Your task to perform on an android device: Open Amazon Image 0: 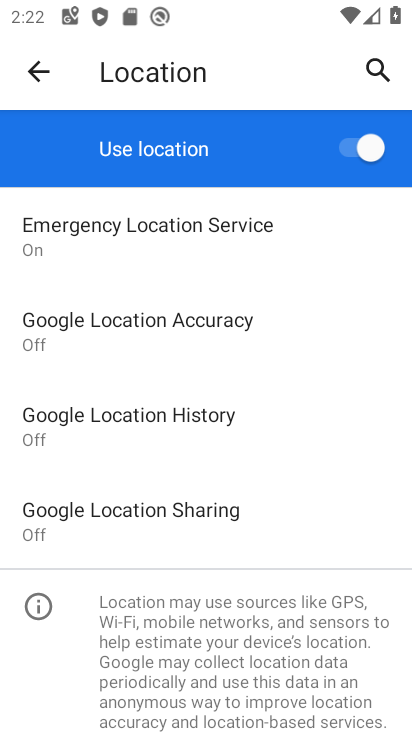
Step 0: press home button
Your task to perform on an android device: Open Amazon Image 1: 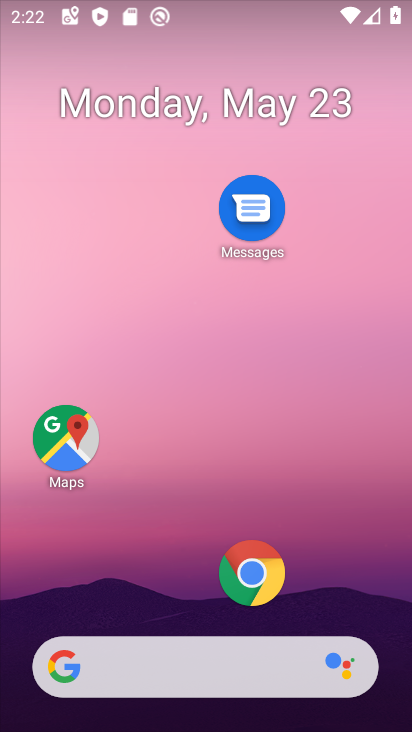
Step 1: drag from (290, 652) to (289, 19)
Your task to perform on an android device: Open Amazon Image 2: 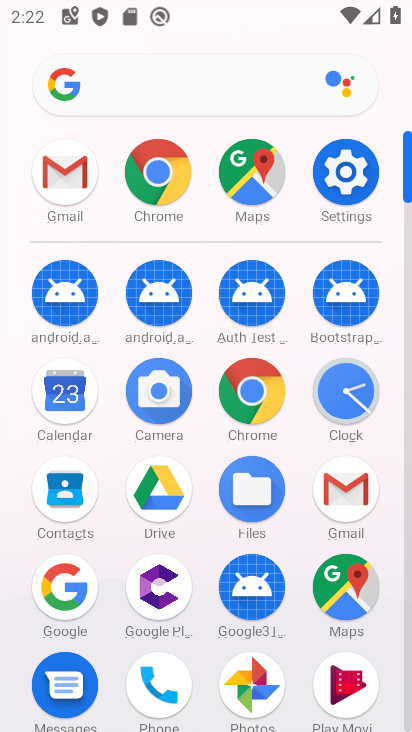
Step 2: click (241, 379)
Your task to perform on an android device: Open Amazon Image 3: 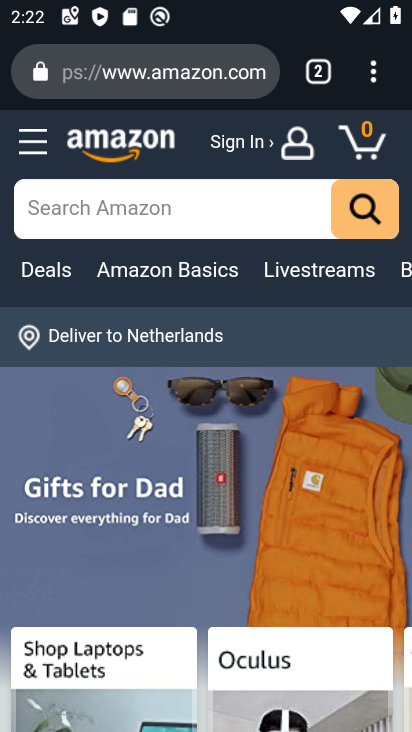
Step 3: task complete